Your task to perform on an android device: Is it going to rain today? Image 0: 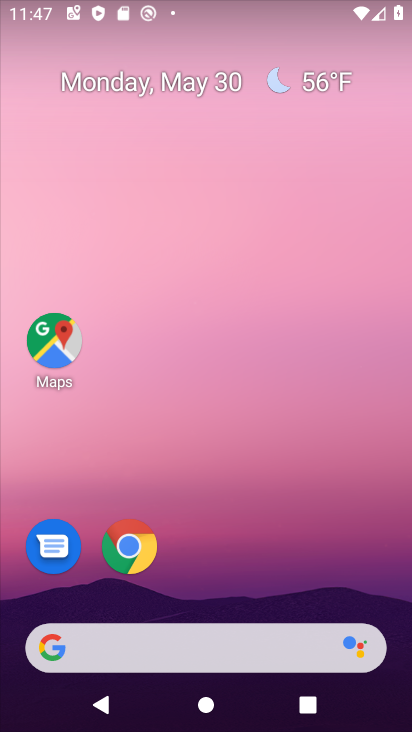
Step 0: drag from (307, 572) to (244, 233)
Your task to perform on an android device: Is it going to rain today? Image 1: 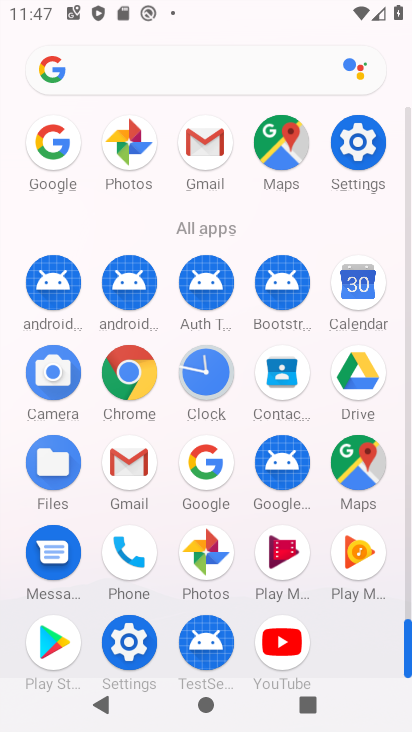
Step 1: click (49, 142)
Your task to perform on an android device: Is it going to rain today? Image 2: 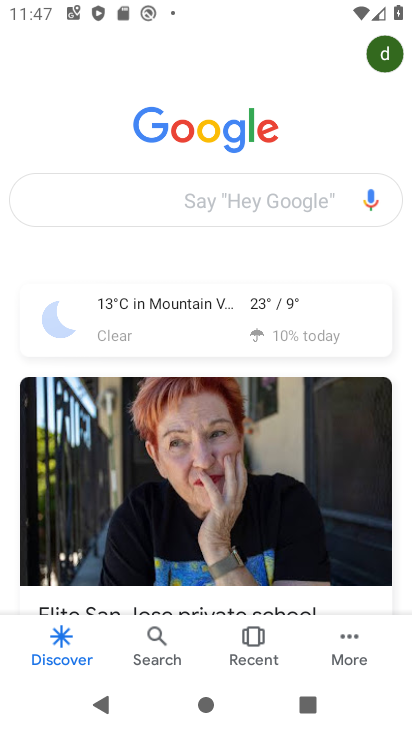
Step 2: click (192, 301)
Your task to perform on an android device: Is it going to rain today? Image 3: 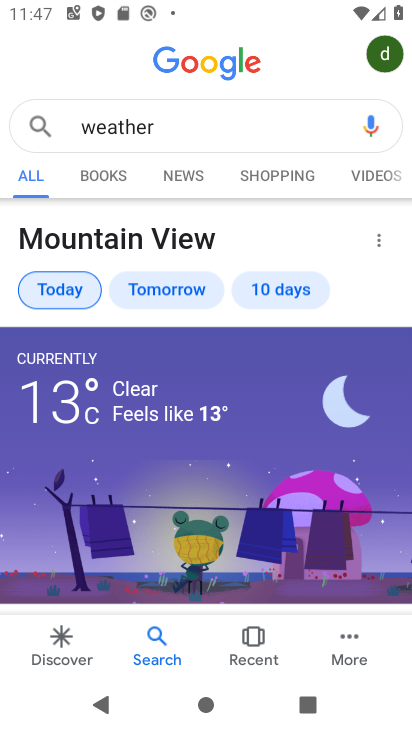
Step 3: task complete